Your task to perform on an android device: turn off location history Image 0: 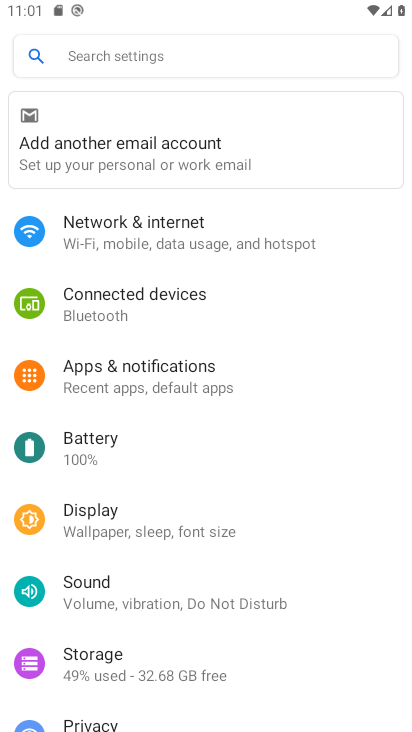
Step 0: drag from (213, 596) to (227, 284)
Your task to perform on an android device: turn off location history Image 1: 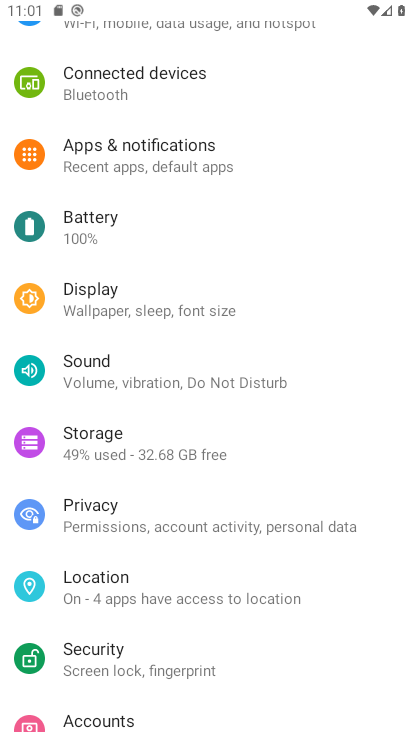
Step 1: click (111, 584)
Your task to perform on an android device: turn off location history Image 2: 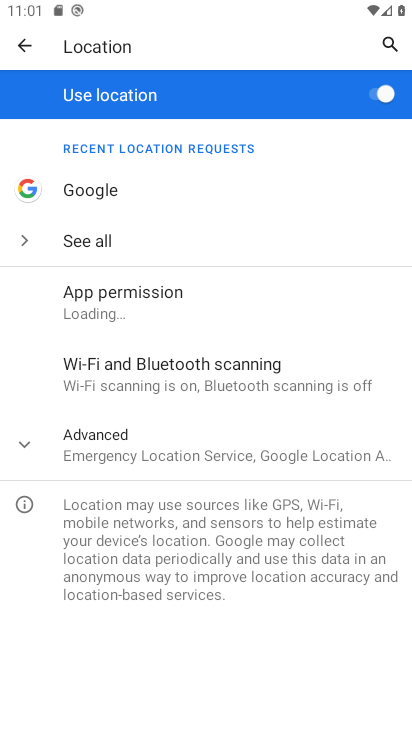
Step 2: task complete